Your task to perform on an android device: Open Reddit.com Image 0: 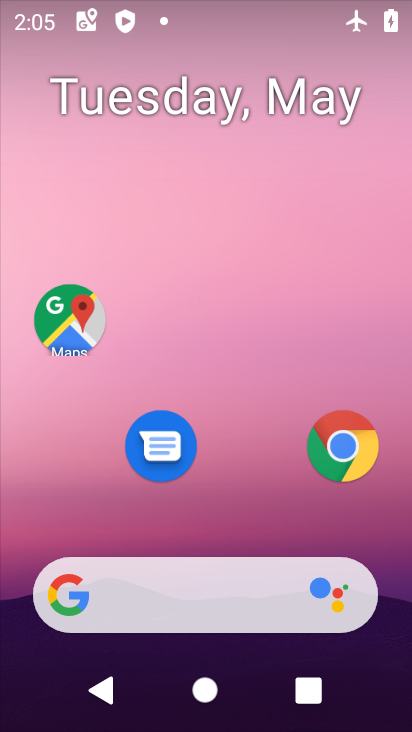
Step 0: click (329, 446)
Your task to perform on an android device: Open Reddit.com Image 1: 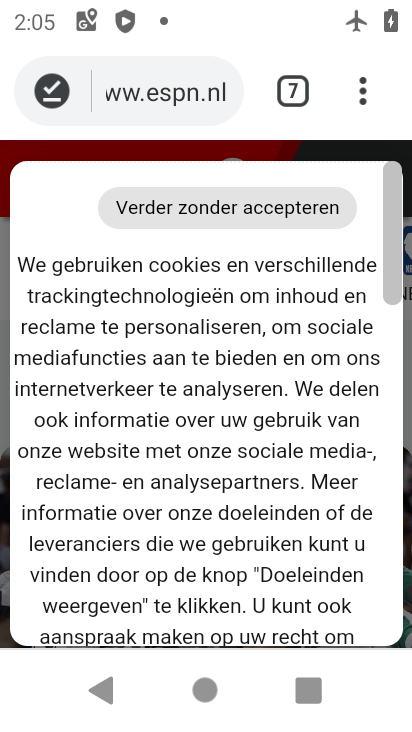
Step 1: click (278, 83)
Your task to perform on an android device: Open Reddit.com Image 2: 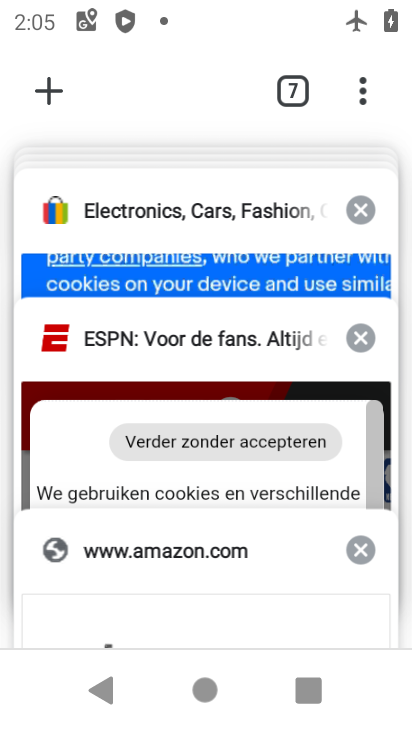
Step 2: click (58, 66)
Your task to perform on an android device: Open Reddit.com Image 3: 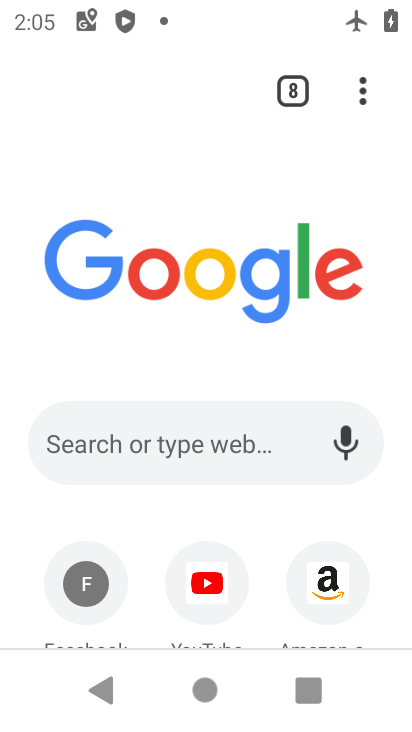
Step 3: click (193, 475)
Your task to perform on an android device: Open Reddit.com Image 4: 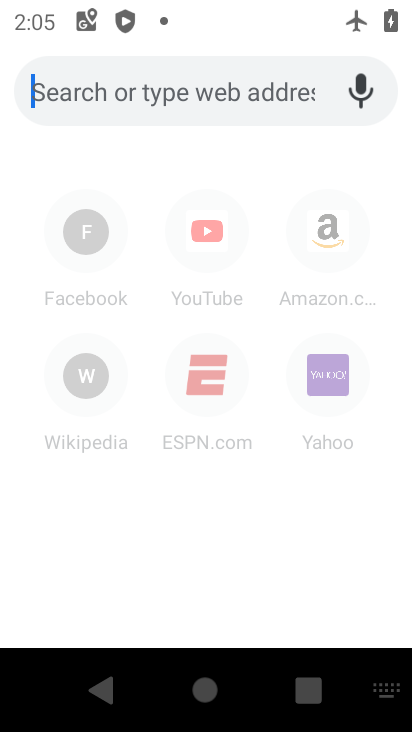
Step 4: type "reddit"
Your task to perform on an android device: Open Reddit.com Image 5: 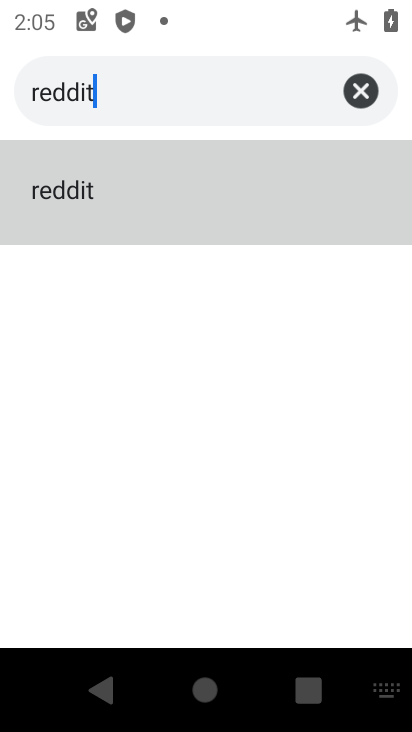
Step 5: type ""
Your task to perform on an android device: Open Reddit.com Image 6: 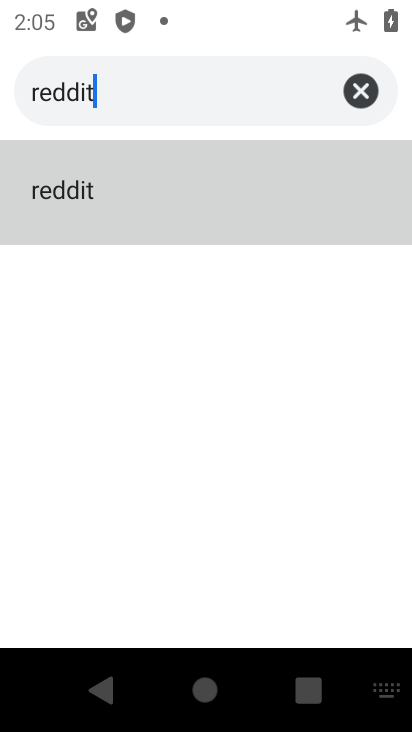
Step 6: click (297, 229)
Your task to perform on an android device: Open Reddit.com Image 7: 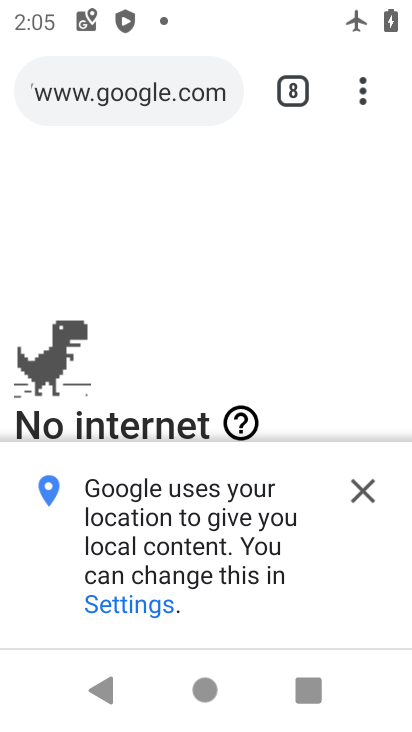
Step 7: task complete